Your task to perform on an android device: refresh tabs in the chrome app Image 0: 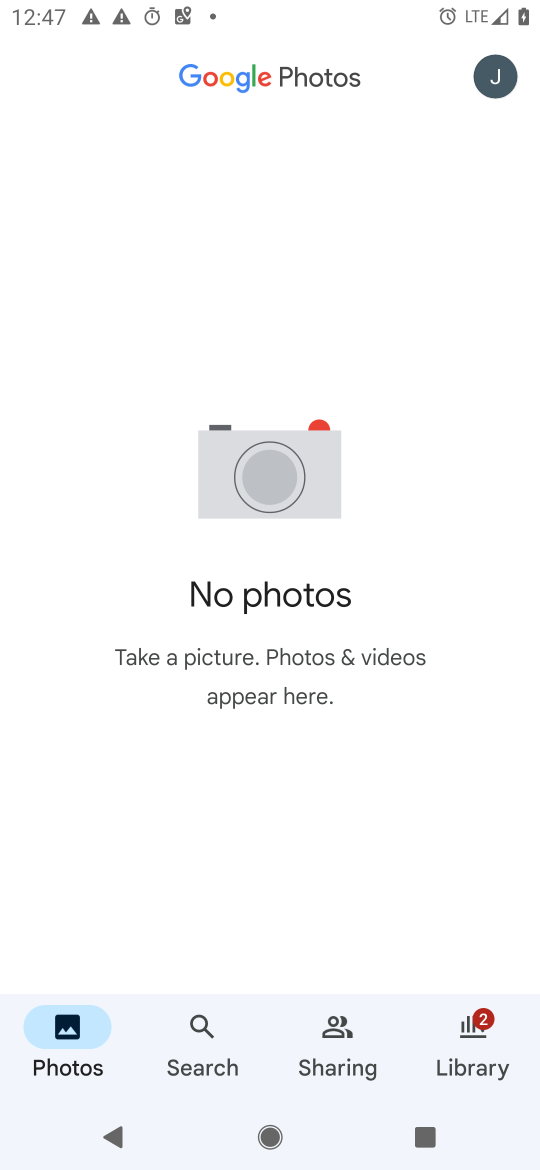
Step 0: press home button
Your task to perform on an android device: refresh tabs in the chrome app Image 1: 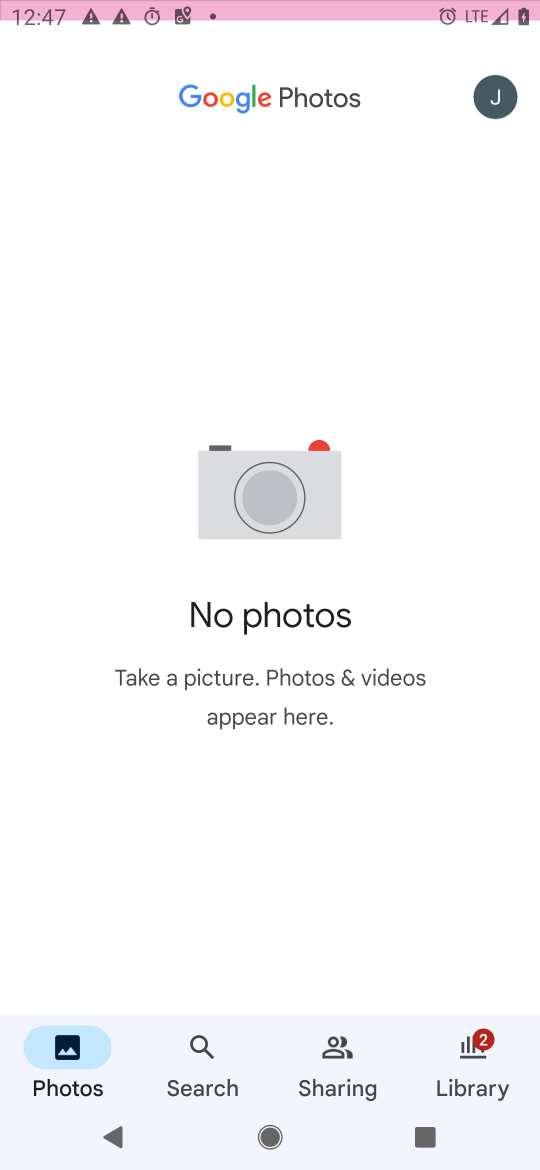
Step 1: drag from (260, 701) to (348, 184)
Your task to perform on an android device: refresh tabs in the chrome app Image 2: 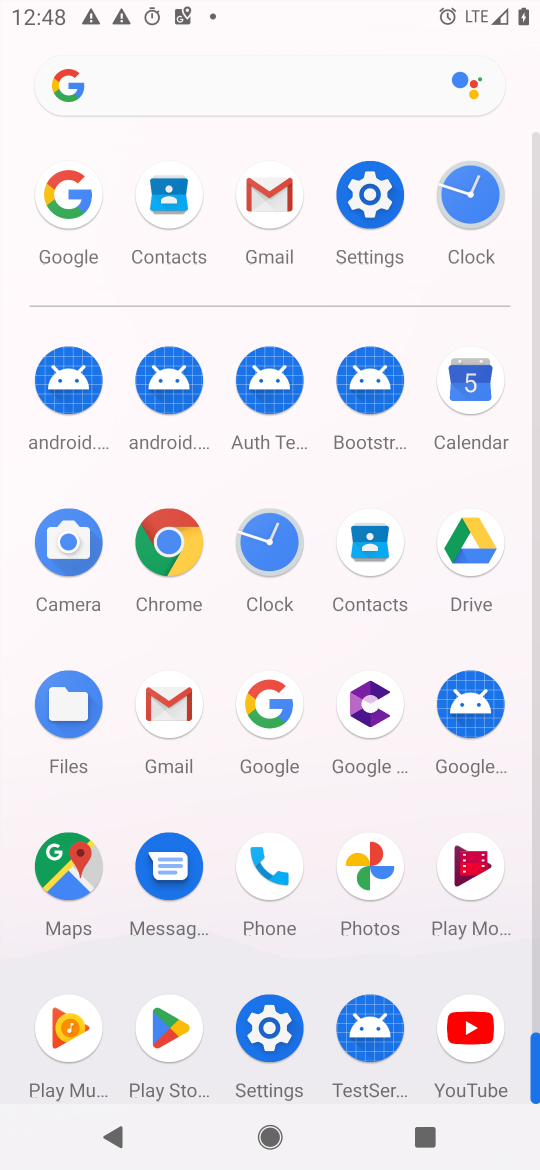
Step 2: click (159, 543)
Your task to perform on an android device: refresh tabs in the chrome app Image 3: 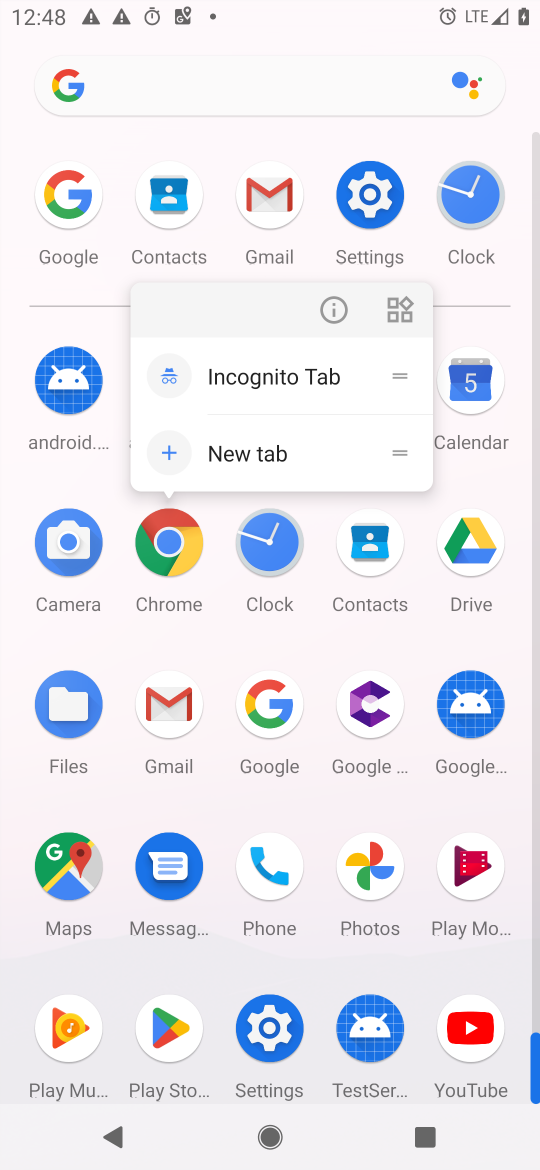
Step 3: click (342, 309)
Your task to perform on an android device: refresh tabs in the chrome app Image 4: 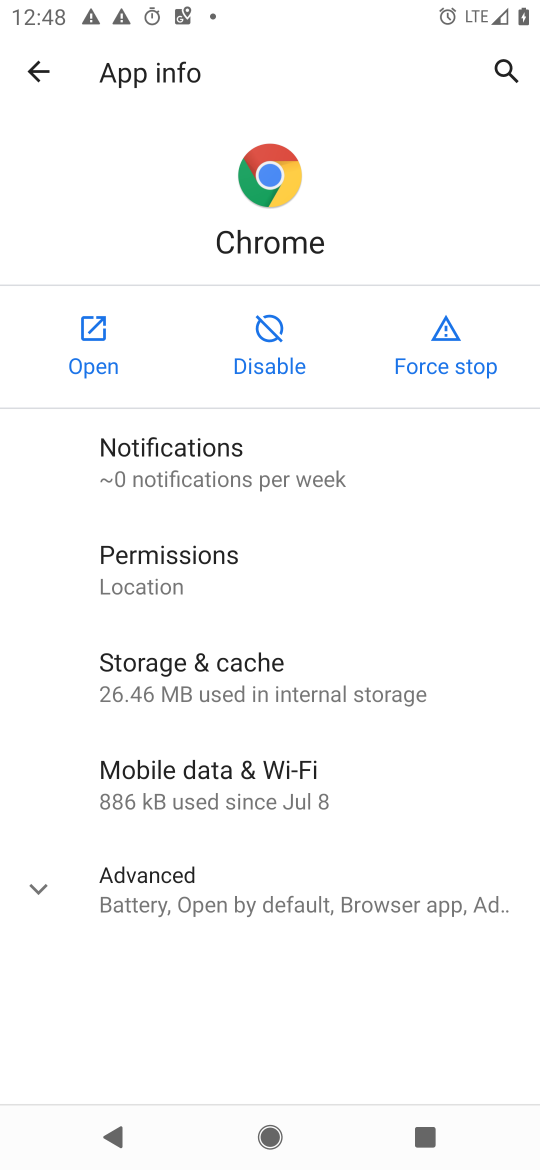
Step 4: click (73, 334)
Your task to perform on an android device: refresh tabs in the chrome app Image 5: 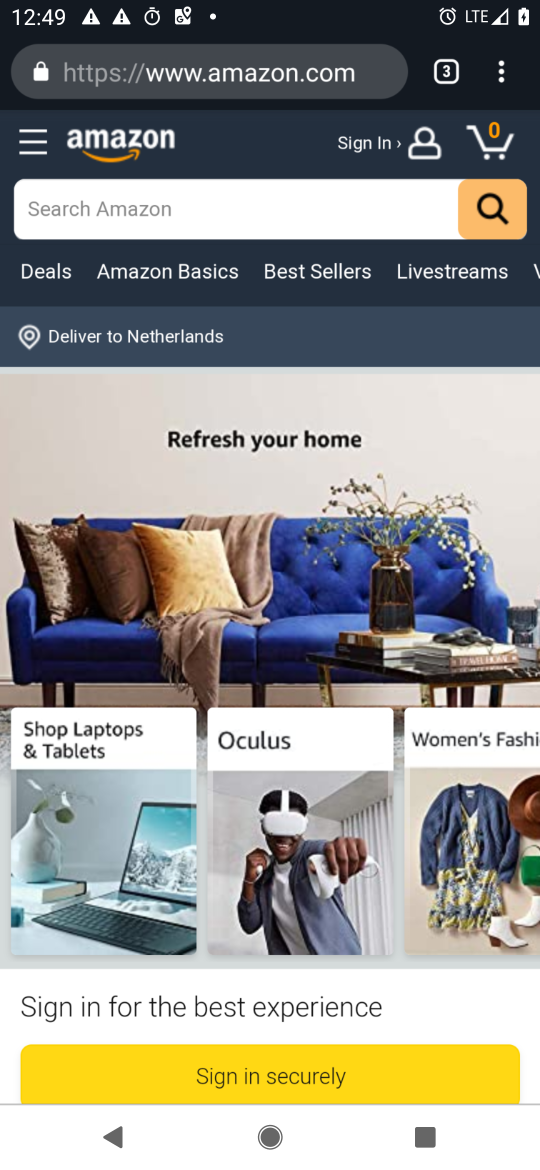
Step 5: click (499, 68)
Your task to perform on an android device: refresh tabs in the chrome app Image 6: 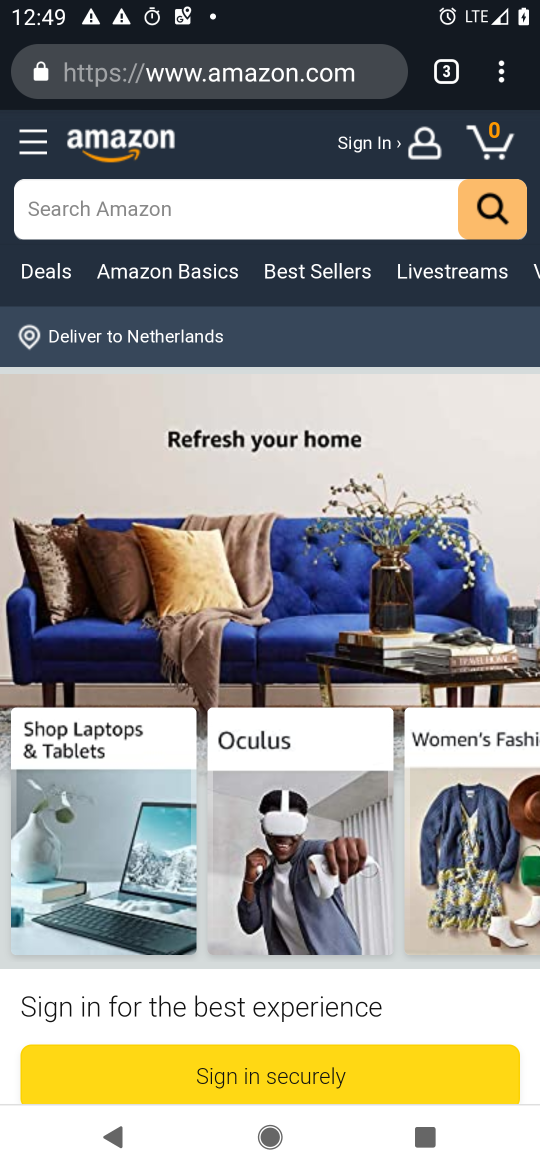
Step 6: task complete